Your task to perform on an android device: move a message to another label in the gmail app Image 0: 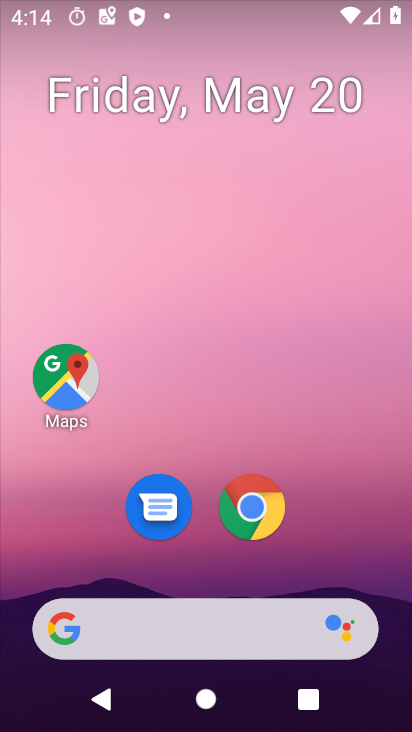
Step 0: drag from (351, 564) to (243, 179)
Your task to perform on an android device: move a message to another label in the gmail app Image 1: 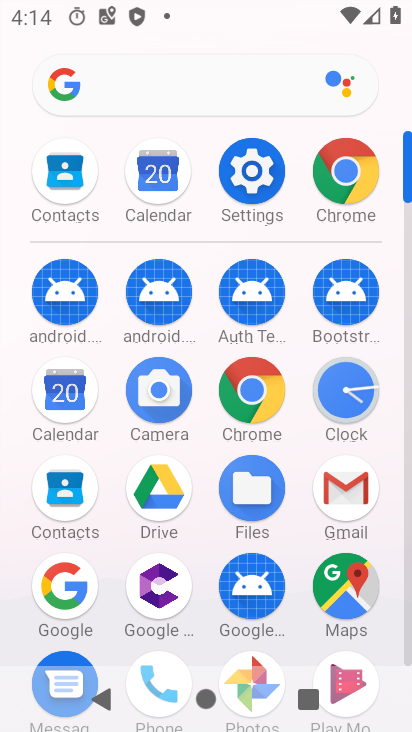
Step 1: click (343, 488)
Your task to perform on an android device: move a message to another label in the gmail app Image 2: 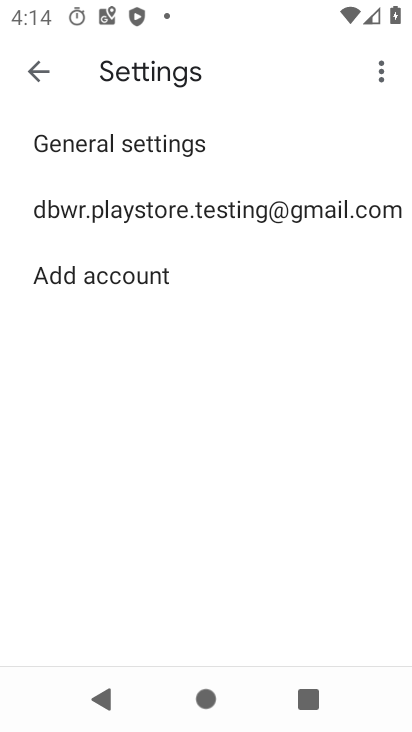
Step 2: click (43, 65)
Your task to perform on an android device: move a message to another label in the gmail app Image 3: 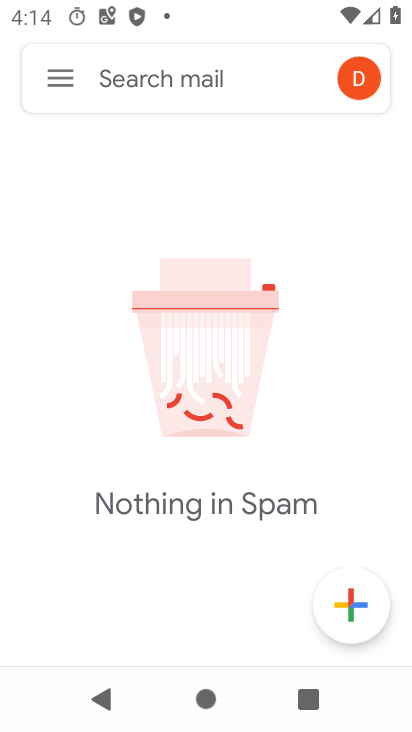
Step 3: click (65, 91)
Your task to perform on an android device: move a message to another label in the gmail app Image 4: 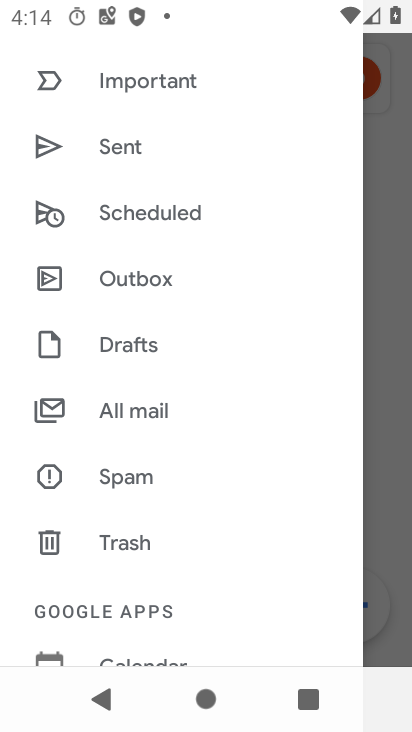
Step 4: click (153, 429)
Your task to perform on an android device: move a message to another label in the gmail app Image 5: 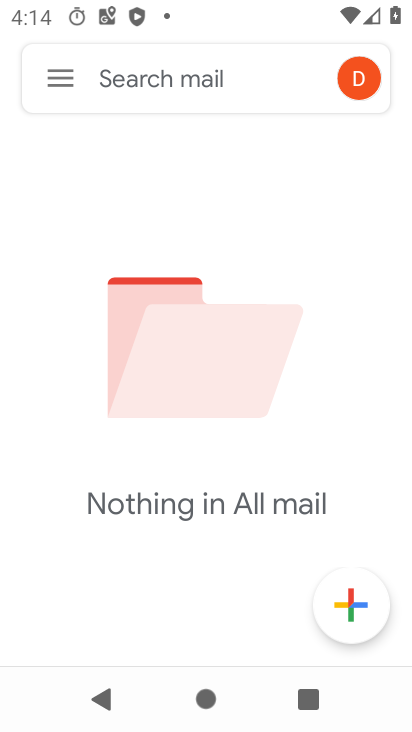
Step 5: click (57, 86)
Your task to perform on an android device: move a message to another label in the gmail app Image 6: 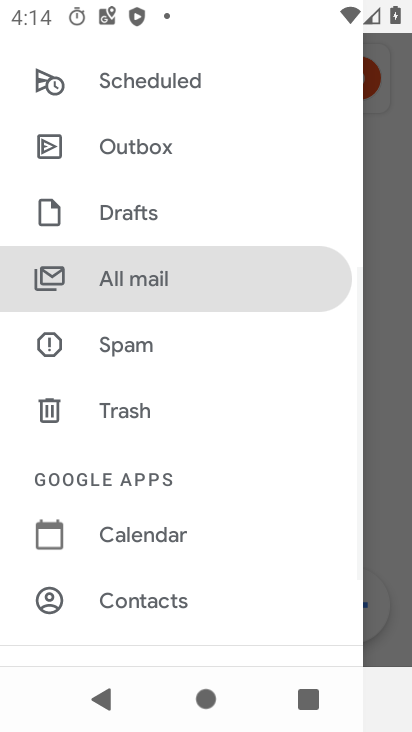
Step 6: drag from (166, 256) to (174, 443)
Your task to perform on an android device: move a message to another label in the gmail app Image 7: 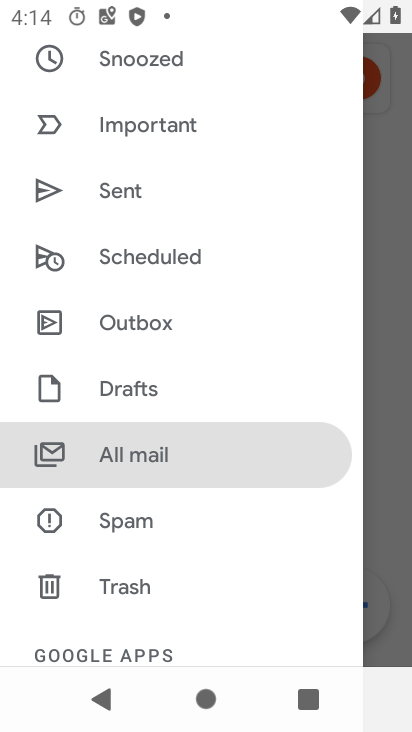
Step 7: drag from (168, 237) to (188, 350)
Your task to perform on an android device: move a message to another label in the gmail app Image 8: 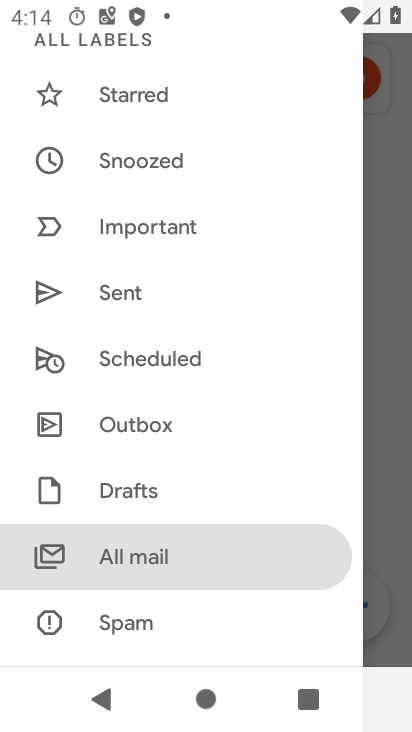
Step 8: drag from (148, 212) to (161, 349)
Your task to perform on an android device: move a message to another label in the gmail app Image 9: 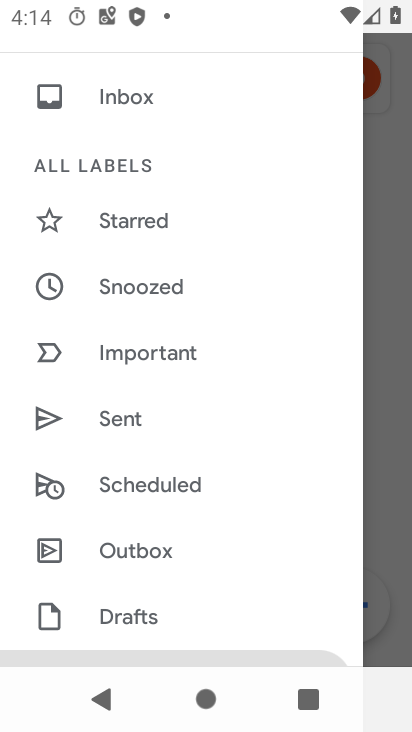
Step 9: click (104, 96)
Your task to perform on an android device: move a message to another label in the gmail app Image 10: 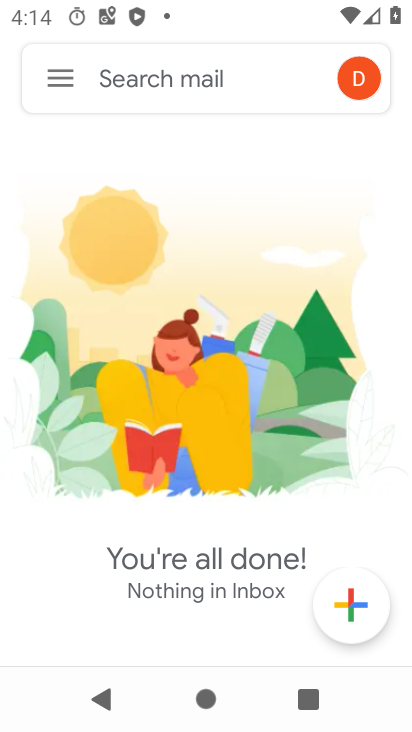
Step 10: task complete